Your task to perform on an android device: turn on sleep mode Image 0: 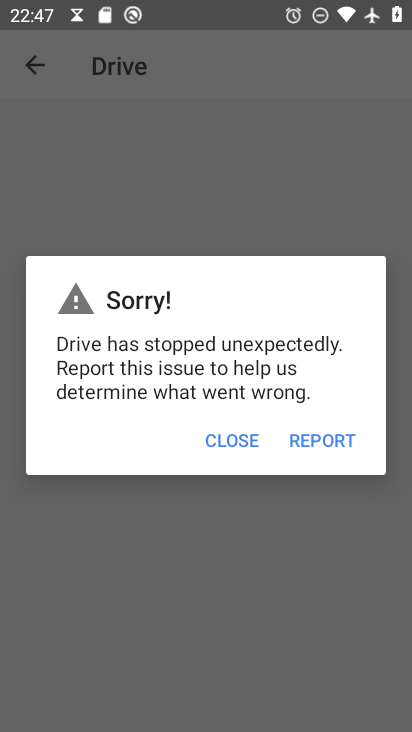
Step 0: press home button
Your task to perform on an android device: turn on sleep mode Image 1: 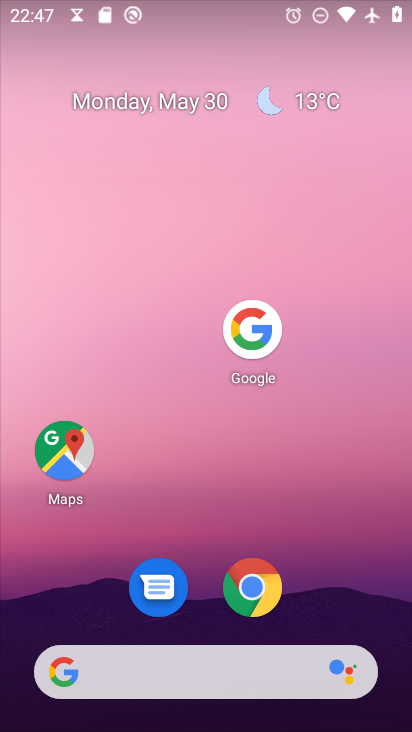
Step 1: drag from (182, 678) to (230, 124)
Your task to perform on an android device: turn on sleep mode Image 2: 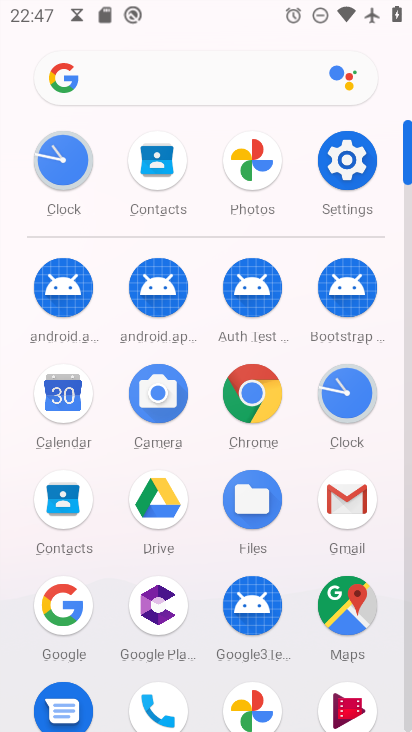
Step 2: click (360, 162)
Your task to perform on an android device: turn on sleep mode Image 3: 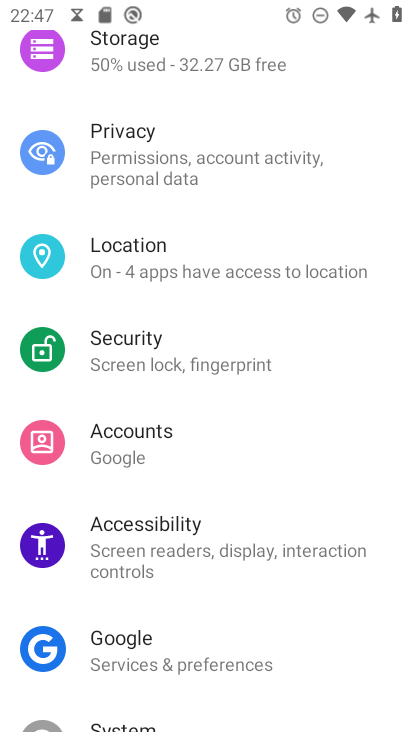
Step 3: drag from (287, 219) to (294, 561)
Your task to perform on an android device: turn on sleep mode Image 4: 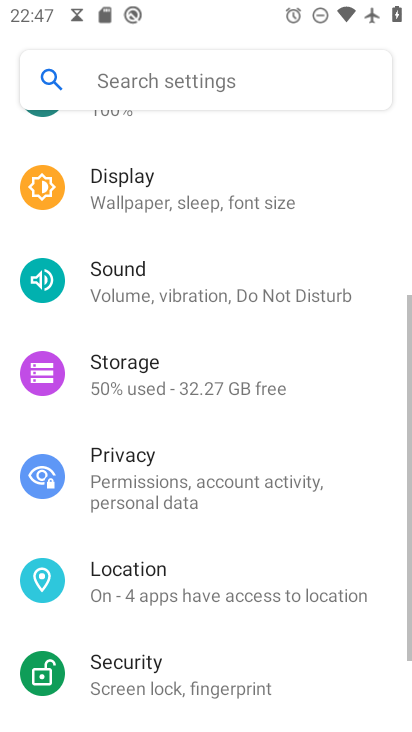
Step 4: click (175, 184)
Your task to perform on an android device: turn on sleep mode Image 5: 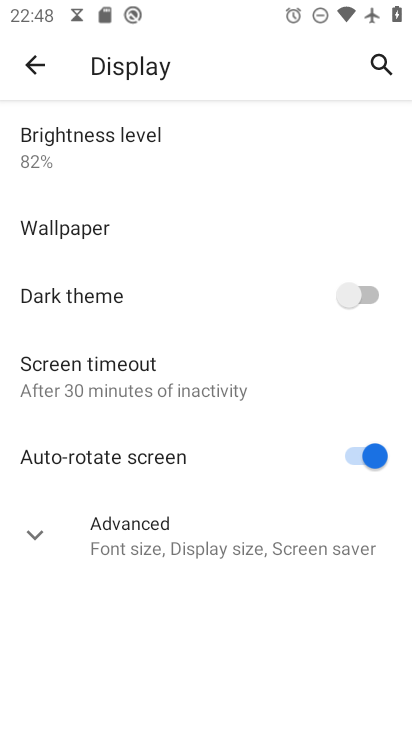
Step 5: task complete